Your task to perform on an android device: Open Reddit.com Image 0: 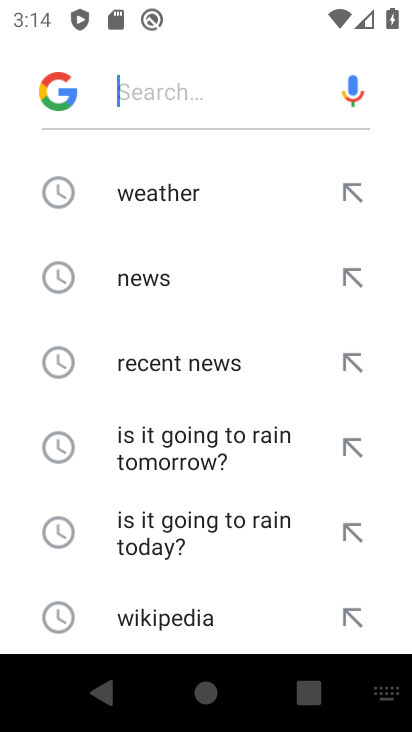
Step 0: press home button
Your task to perform on an android device: Open Reddit.com Image 1: 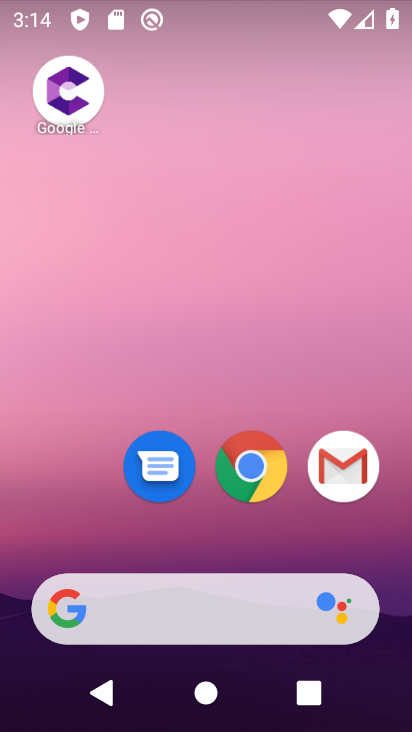
Step 1: click (270, 464)
Your task to perform on an android device: Open Reddit.com Image 2: 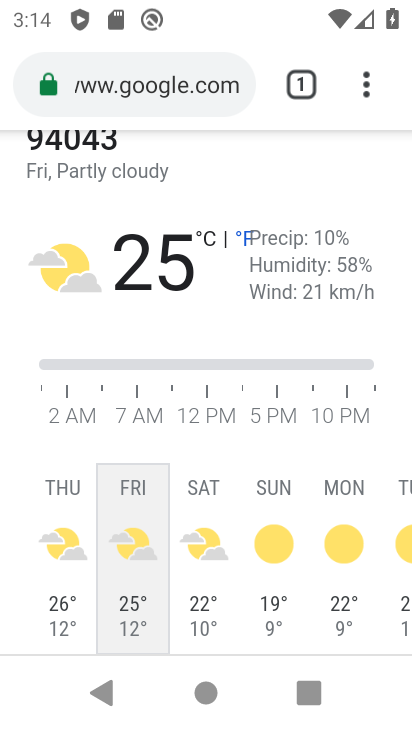
Step 2: click (155, 93)
Your task to perform on an android device: Open Reddit.com Image 3: 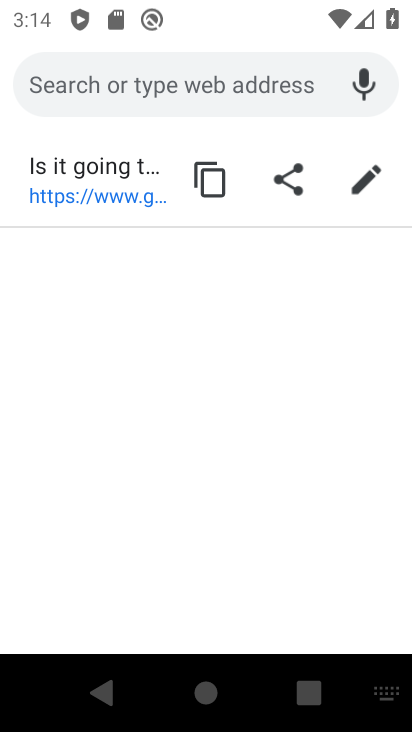
Step 3: type "Reddit.com"
Your task to perform on an android device: Open Reddit.com Image 4: 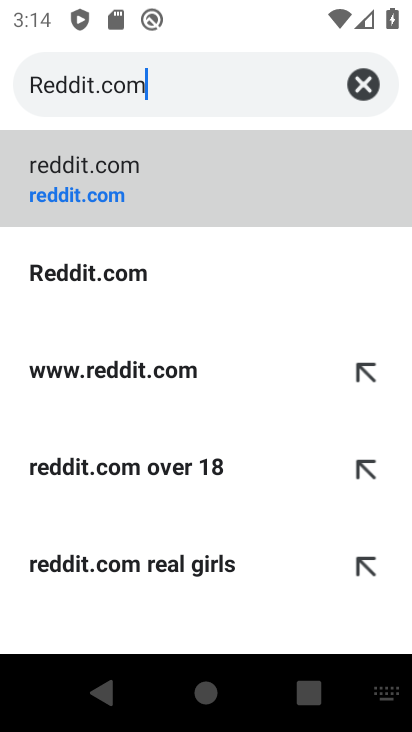
Step 4: click (112, 197)
Your task to perform on an android device: Open Reddit.com Image 5: 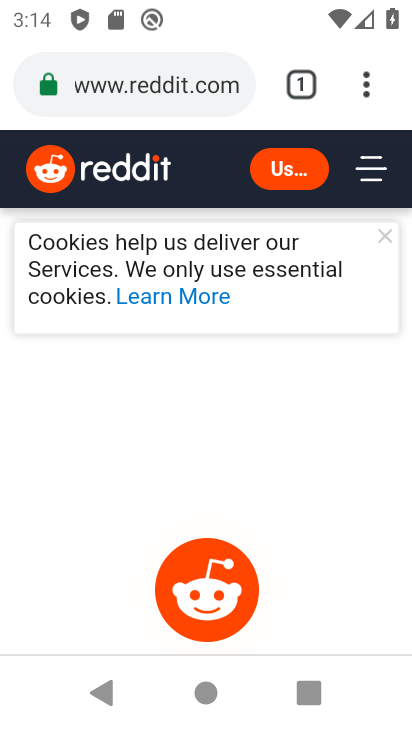
Step 5: task complete